Your task to perform on an android device: move a message to another label in the gmail app Image 0: 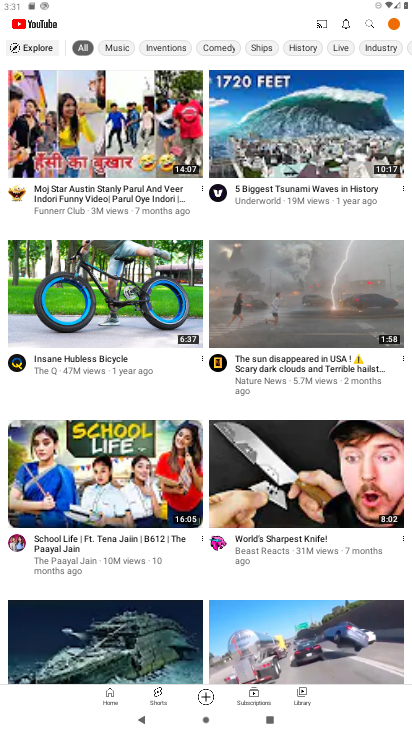
Step 0: press back button
Your task to perform on an android device: move a message to another label in the gmail app Image 1: 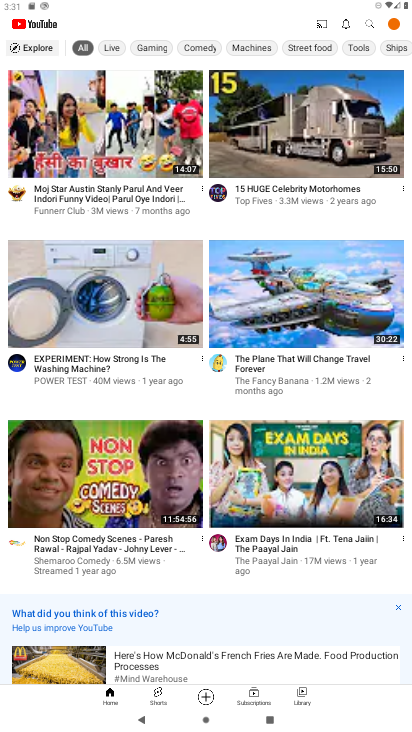
Step 1: press back button
Your task to perform on an android device: move a message to another label in the gmail app Image 2: 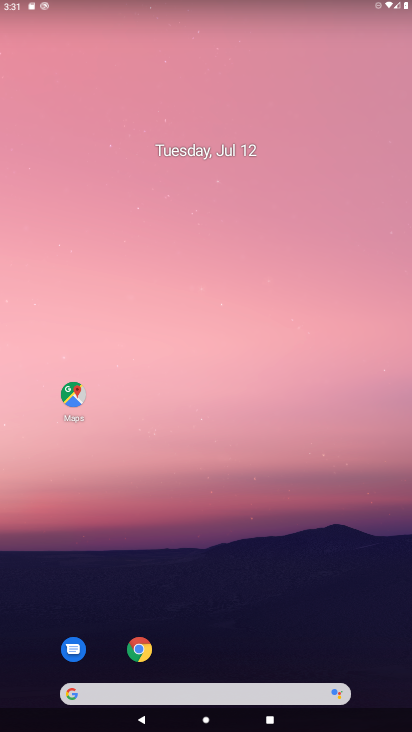
Step 2: drag from (283, 582) to (206, 137)
Your task to perform on an android device: move a message to another label in the gmail app Image 3: 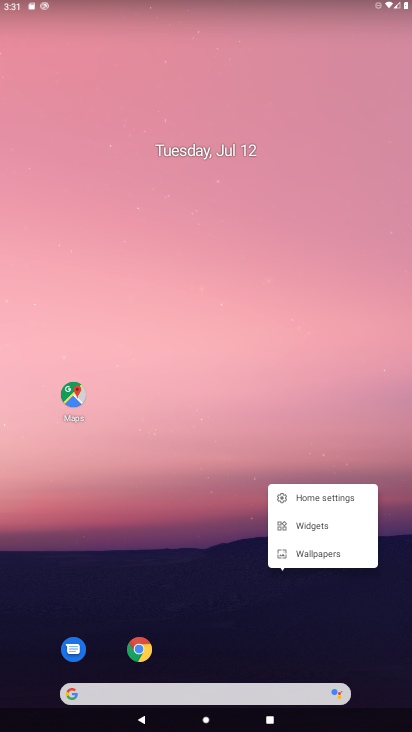
Step 3: click (192, 577)
Your task to perform on an android device: move a message to another label in the gmail app Image 4: 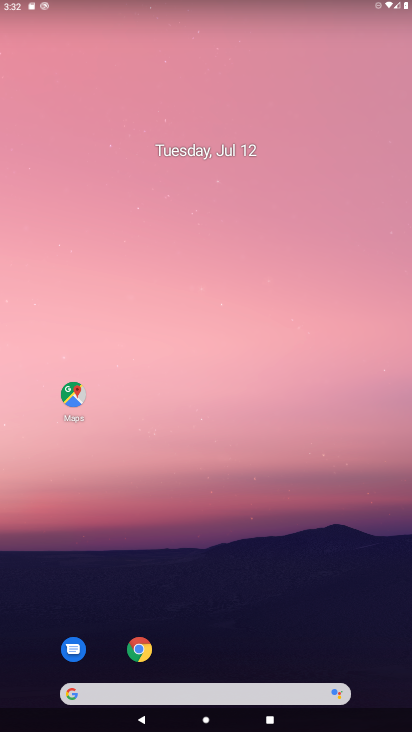
Step 4: drag from (230, 643) to (194, 289)
Your task to perform on an android device: move a message to another label in the gmail app Image 5: 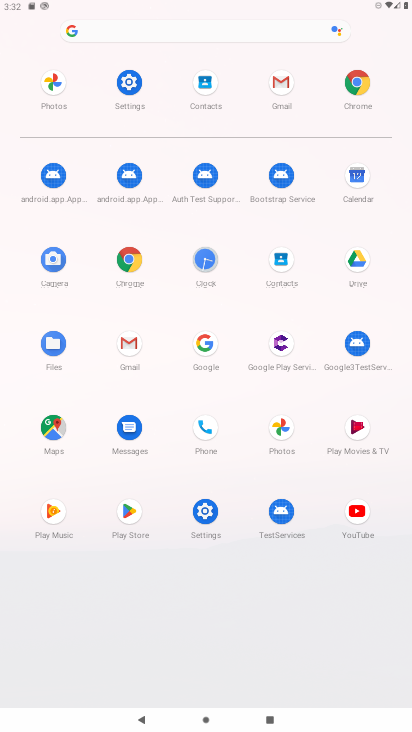
Step 5: click (298, 86)
Your task to perform on an android device: move a message to another label in the gmail app Image 6: 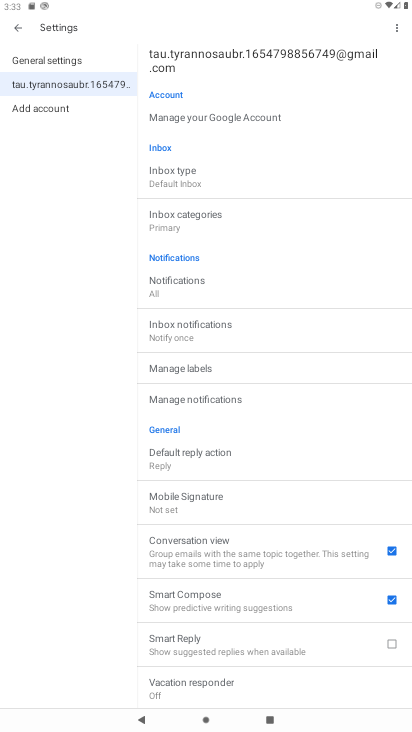
Step 6: task complete